Your task to perform on an android device: toggle show notifications on the lock screen Image 0: 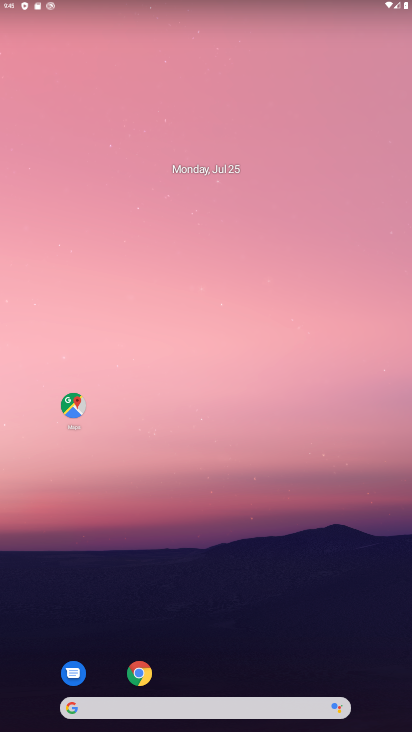
Step 0: drag from (257, 658) to (310, 2)
Your task to perform on an android device: toggle show notifications on the lock screen Image 1: 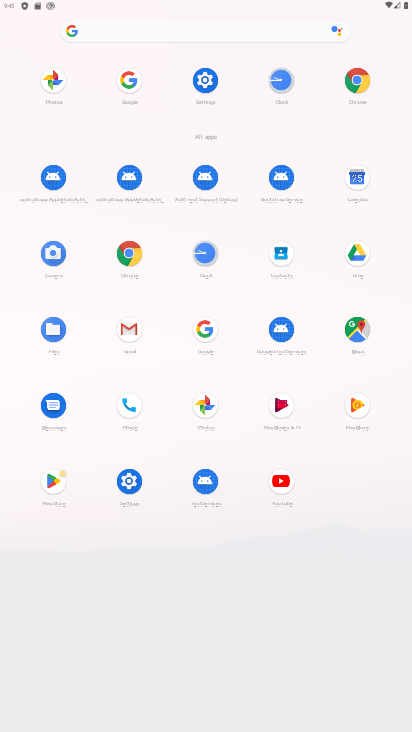
Step 1: click (133, 478)
Your task to perform on an android device: toggle show notifications on the lock screen Image 2: 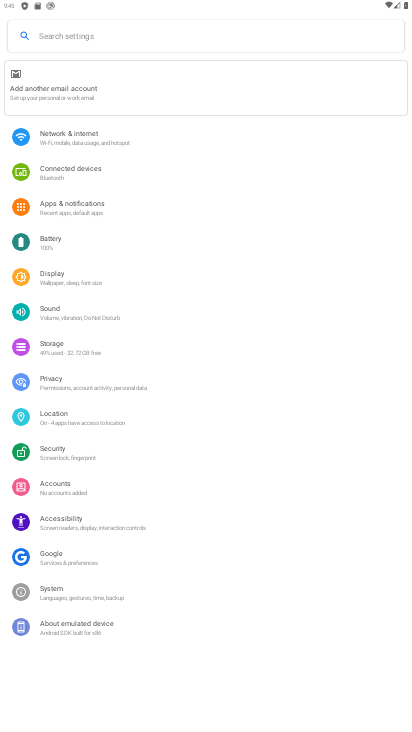
Step 2: click (85, 197)
Your task to perform on an android device: toggle show notifications on the lock screen Image 3: 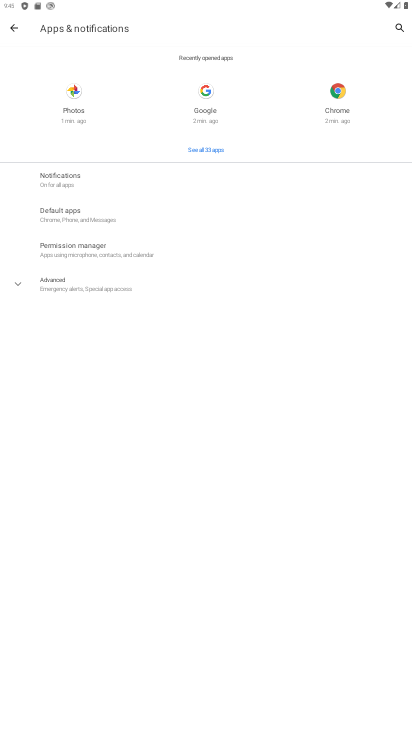
Step 3: click (102, 183)
Your task to perform on an android device: toggle show notifications on the lock screen Image 4: 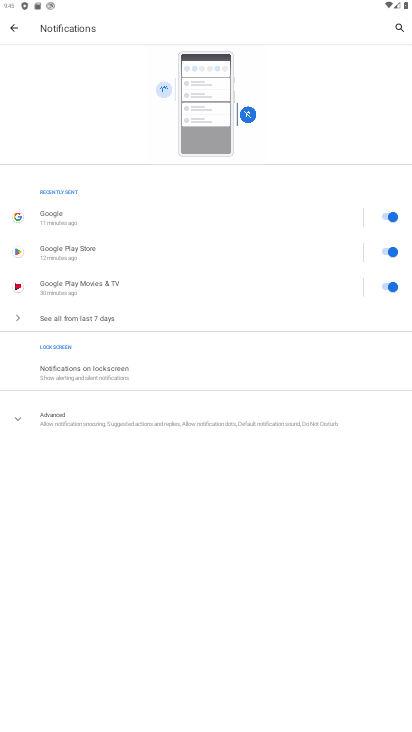
Step 4: task complete